Your task to perform on an android device: Search for seafood restaurants on Google Maps Image 0: 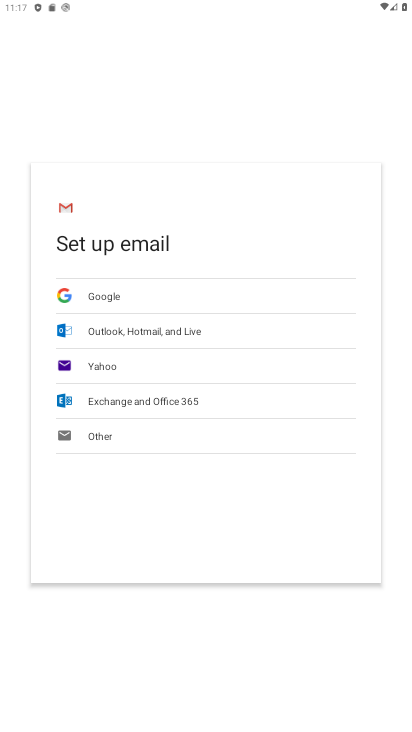
Step 0: press home button
Your task to perform on an android device: Search for seafood restaurants on Google Maps Image 1: 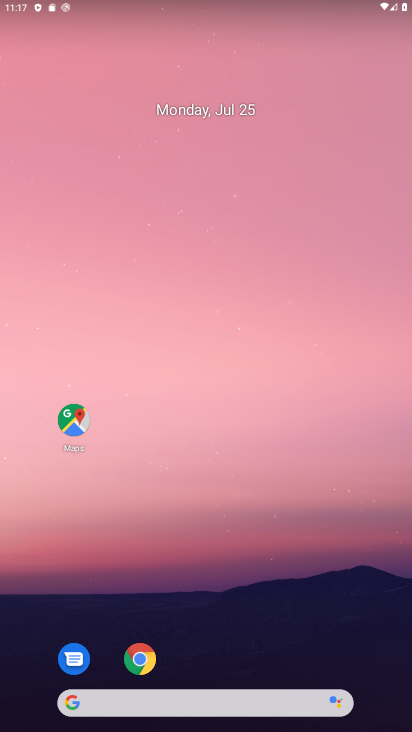
Step 1: drag from (222, 249) to (336, 6)
Your task to perform on an android device: Search for seafood restaurants on Google Maps Image 2: 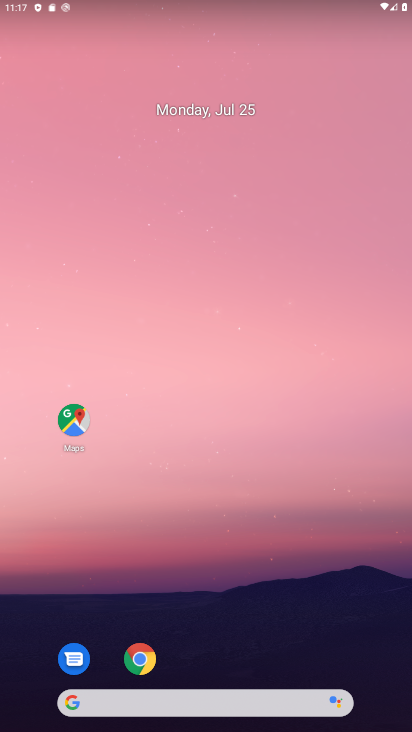
Step 2: click (72, 432)
Your task to perform on an android device: Search for seafood restaurants on Google Maps Image 3: 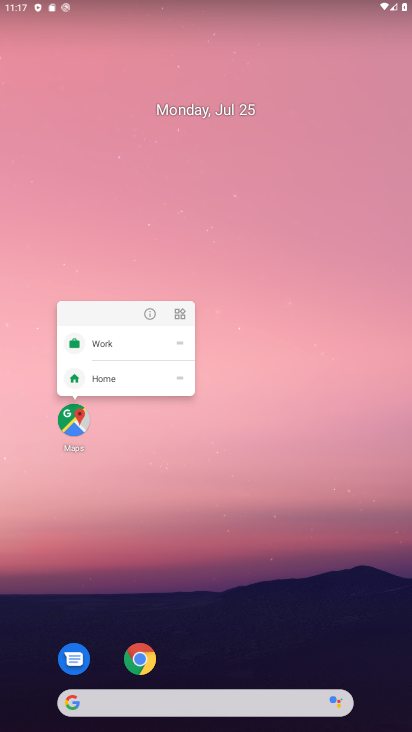
Step 3: click (83, 416)
Your task to perform on an android device: Search for seafood restaurants on Google Maps Image 4: 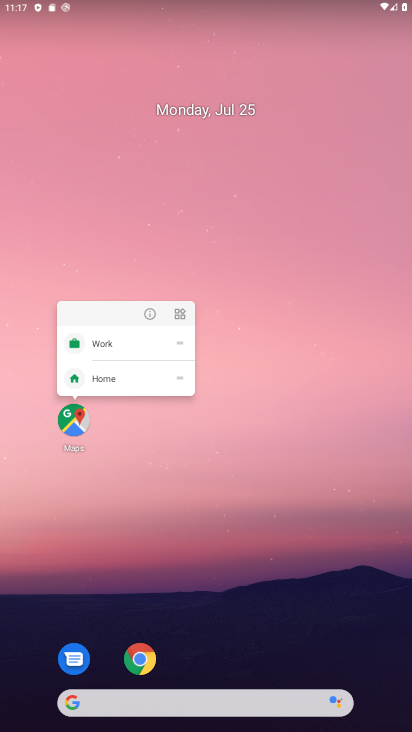
Step 4: click (76, 423)
Your task to perform on an android device: Search for seafood restaurants on Google Maps Image 5: 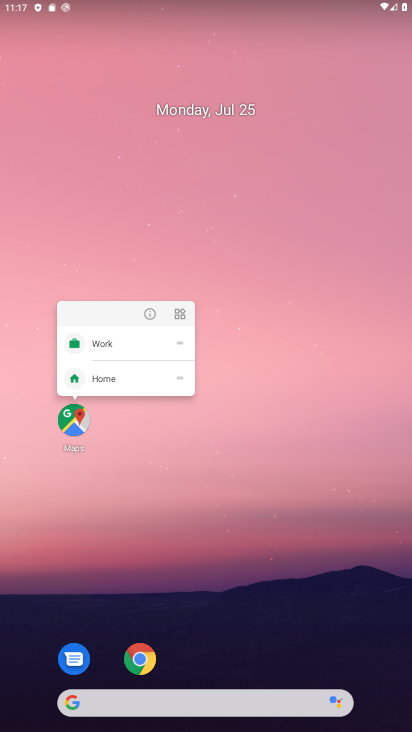
Step 5: click (74, 421)
Your task to perform on an android device: Search for seafood restaurants on Google Maps Image 6: 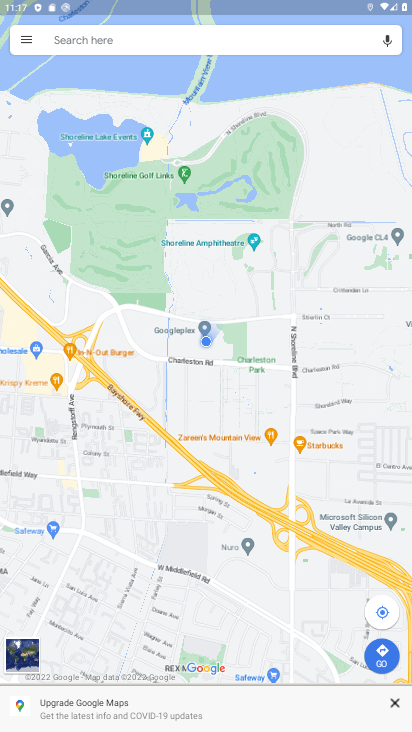
Step 6: click (65, 36)
Your task to perform on an android device: Search for seafood restaurants on Google Maps Image 7: 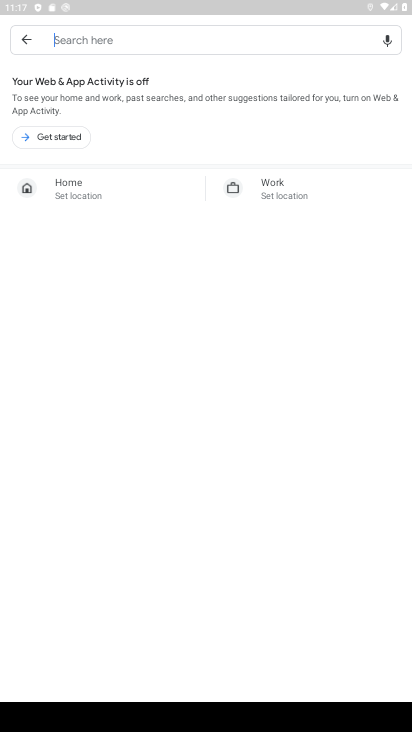
Step 7: type " seafood restaurants"
Your task to perform on an android device: Search for seafood restaurants on Google Maps Image 8: 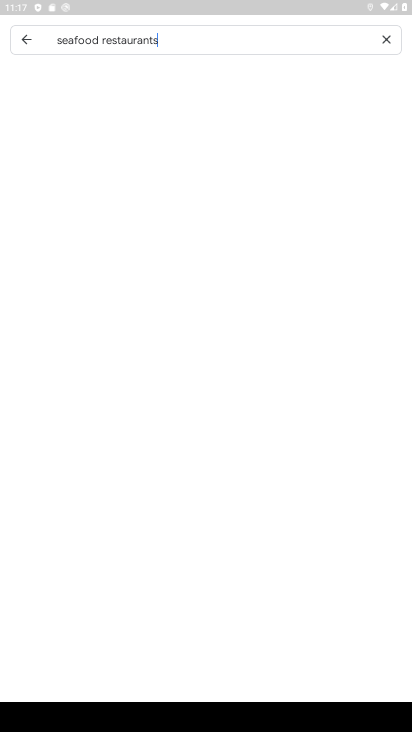
Step 8: type ""
Your task to perform on an android device: Search for seafood restaurants on Google Maps Image 9: 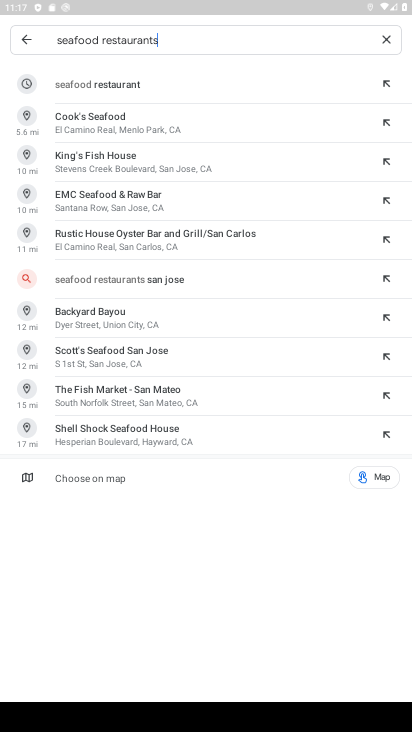
Step 9: click (99, 88)
Your task to perform on an android device: Search for seafood restaurants on Google Maps Image 10: 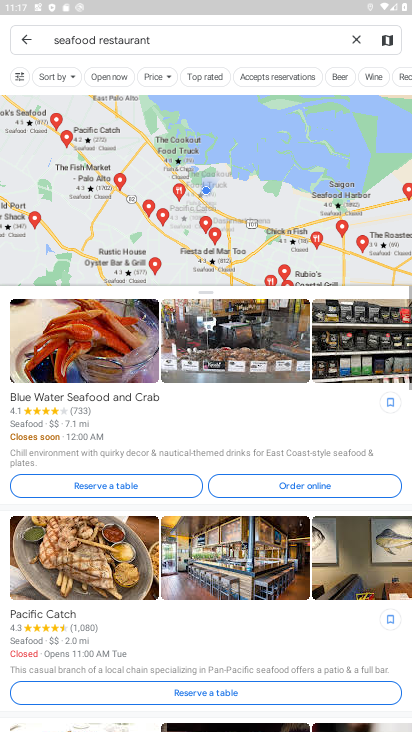
Step 10: task complete